Your task to perform on an android device: change the clock display to digital Image 0: 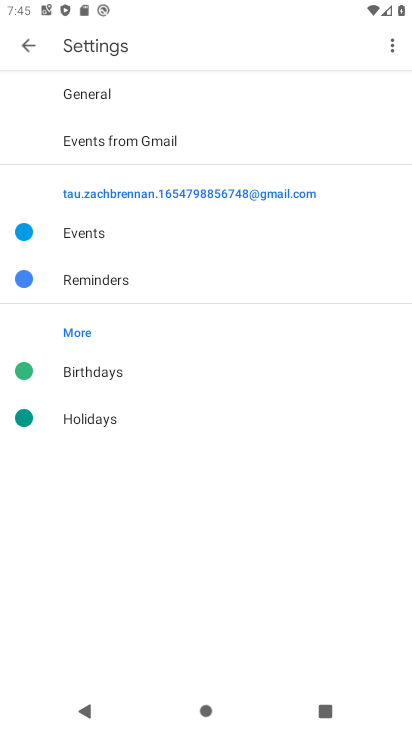
Step 0: press home button
Your task to perform on an android device: change the clock display to digital Image 1: 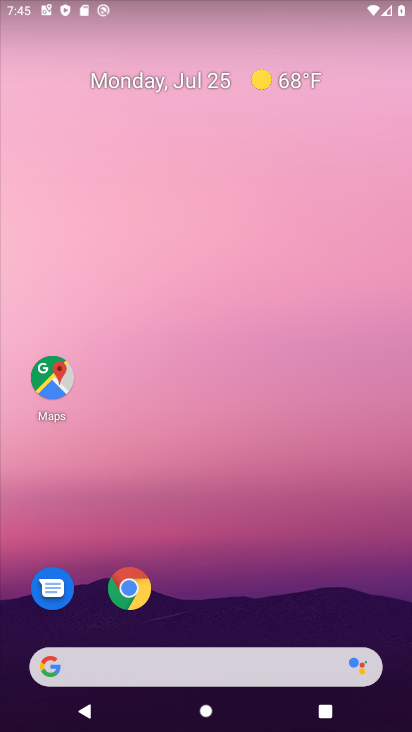
Step 1: drag from (367, 584) to (366, 78)
Your task to perform on an android device: change the clock display to digital Image 2: 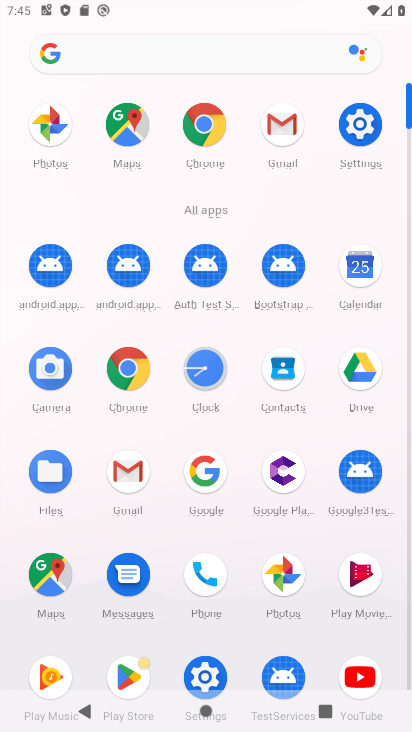
Step 2: click (205, 370)
Your task to perform on an android device: change the clock display to digital Image 3: 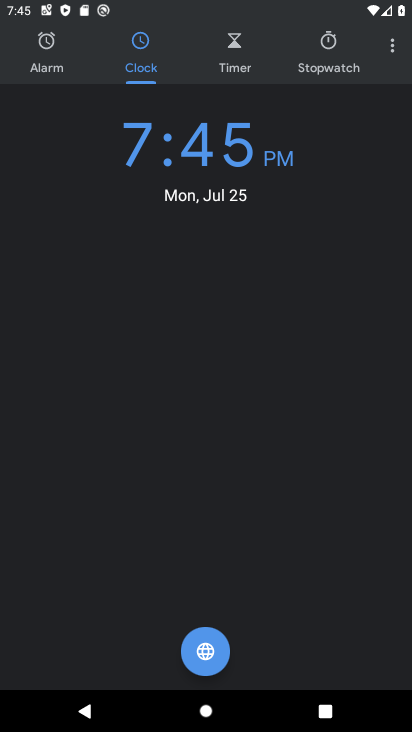
Step 3: click (395, 53)
Your task to perform on an android device: change the clock display to digital Image 4: 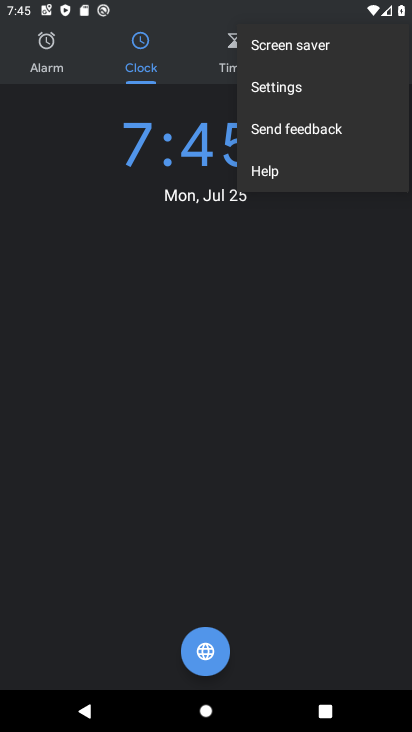
Step 4: click (291, 81)
Your task to perform on an android device: change the clock display to digital Image 5: 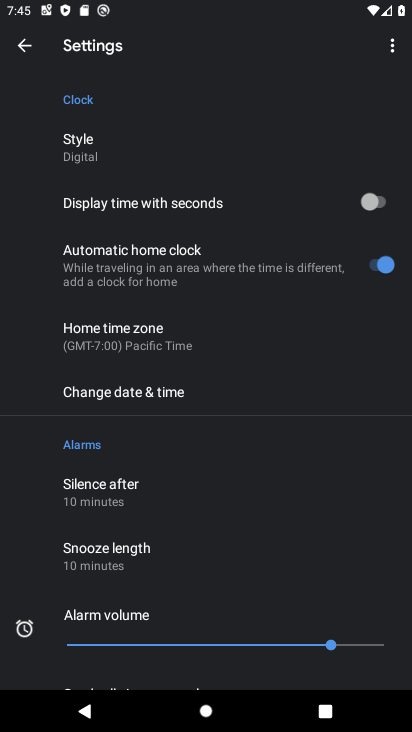
Step 5: task complete